Your task to perform on an android device: turn smart compose on in the gmail app Image 0: 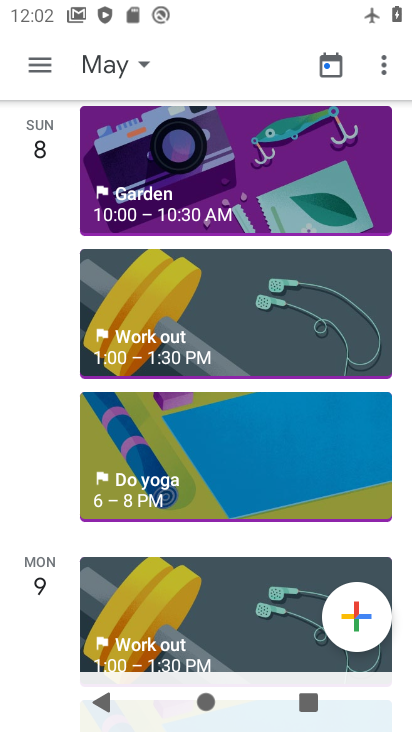
Step 0: press home button
Your task to perform on an android device: turn smart compose on in the gmail app Image 1: 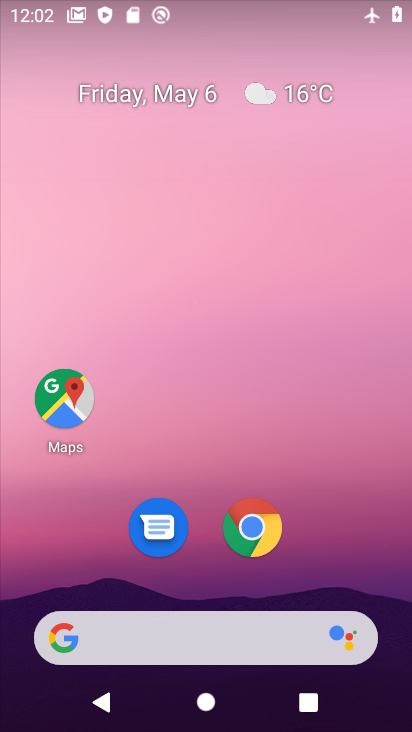
Step 1: drag from (315, 526) to (192, 158)
Your task to perform on an android device: turn smart compose on in the gmail app Image 2: 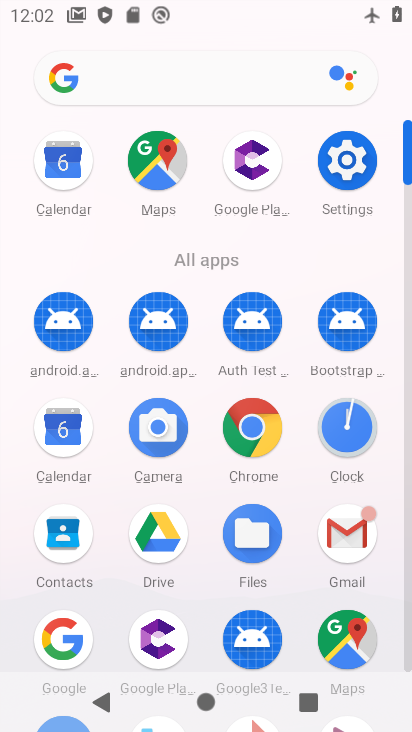
Step 2: click (343, 537)
Your task to perform on an android device: turn smart compose on in the gmail app Image 3: 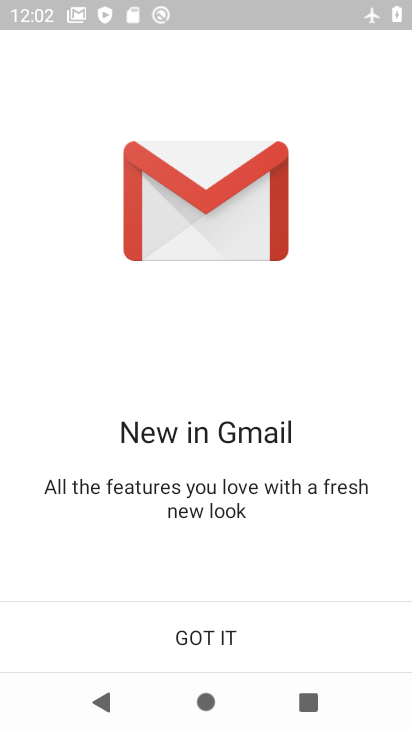
Step 3: click (218, 632)
Your task to perform on an android device: turn smart compose on in the gmail app Image 4: 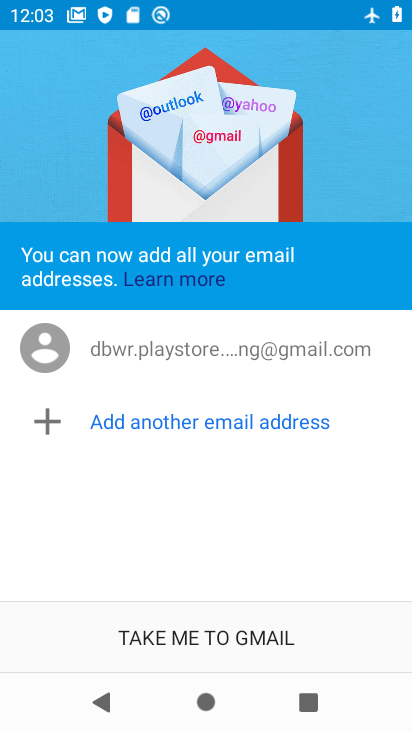
Step 4: click (218, 632)
Your task to perform on an android device: turn smart compose on in the gmail app Image 5: 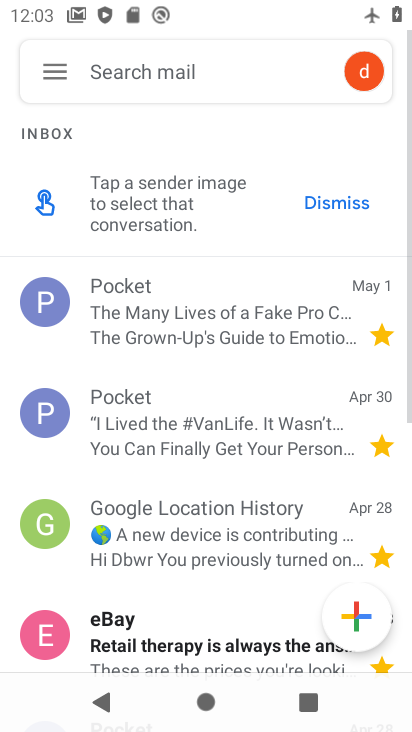
Step 5: click (56, 69)
Your task to perform on an android device: turn smart compose on in the gmail app Image 6: 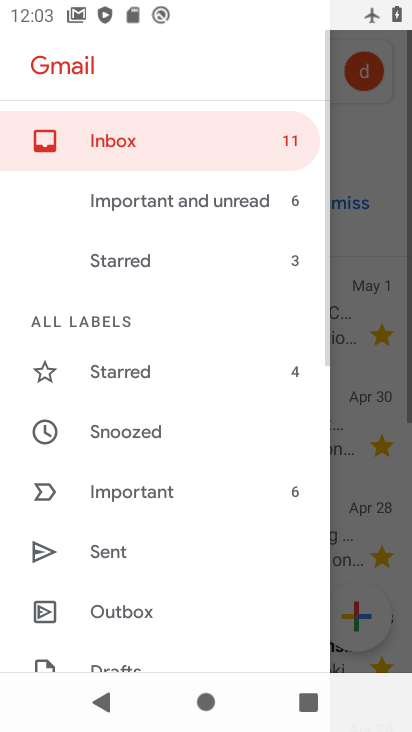
Step 6: drag from (209, 596) to (188, 113)
Your task to perform on an android device: turn smart compose on in the gmail app Image 7: 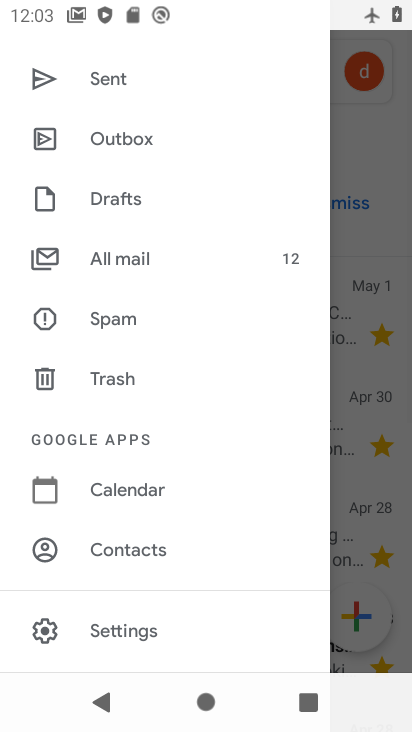
Step 7: click (99, 625)
Your task to perform on an android device: turn smart compose on in the gmail app Image 8: 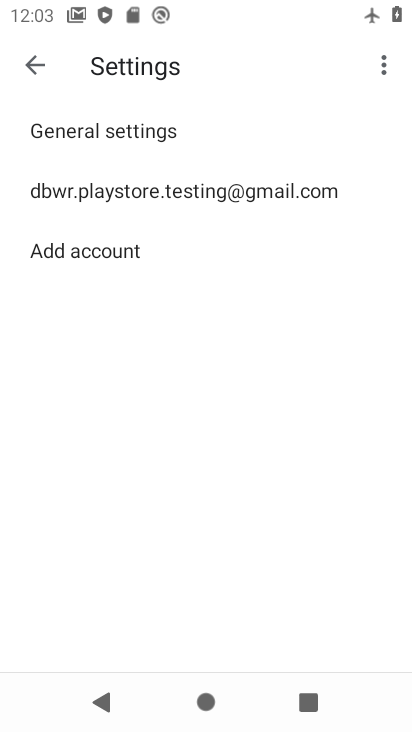
Step 8: click (146, 187)
Your task to perform on an android device: turn smart compose on in the gmail app Image 9: 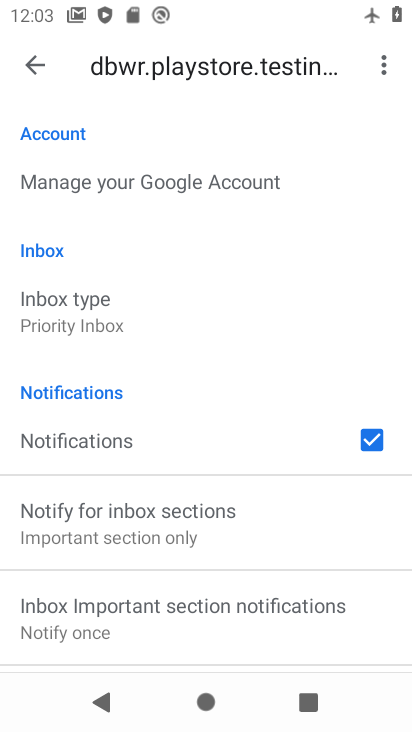
Step 9: task complete